Your task to perform on an android device: turn on translation in the chrome app Image 0: 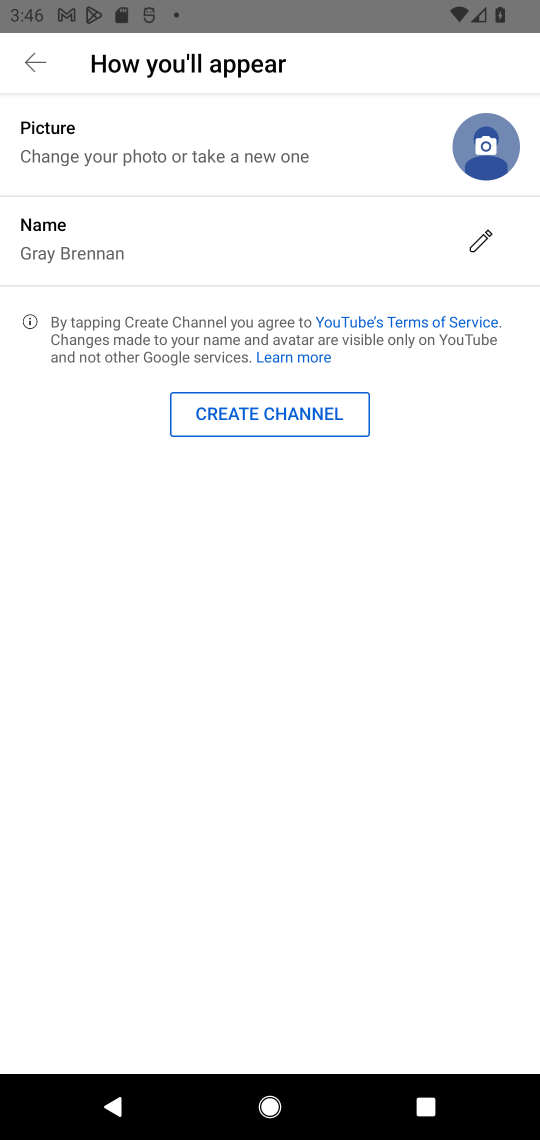
Step 0: task complete